Your task to perform on an android device: clear all cookies in the chrome app Image 0: 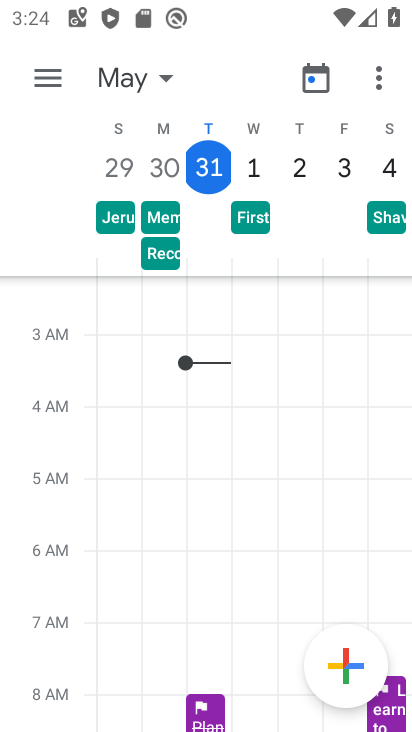
Step 0: press home button
Your task to perform on an android device: clear all cookies in the chrome app Image 1: 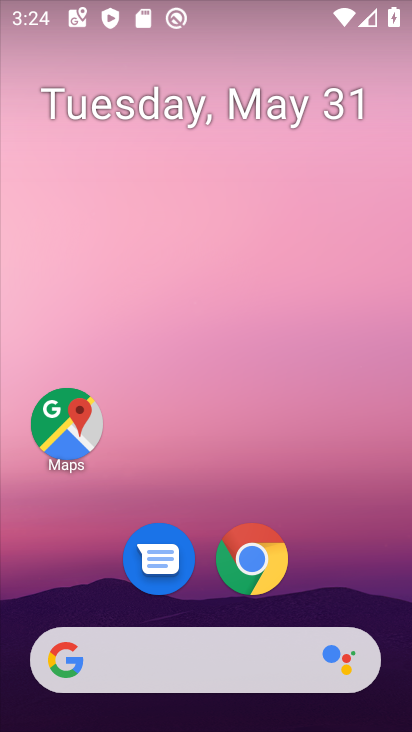
Step 1: click (249, 561)
Your task to perform on an android device: clear all cookies in the chrome app Image 2: 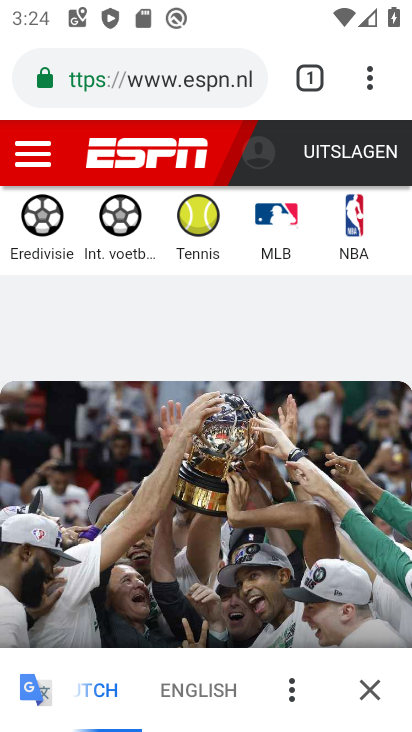
Step 2: click (370, 87)
Your task to perform on an android device: clear all cookies in the chrome app Image 3: 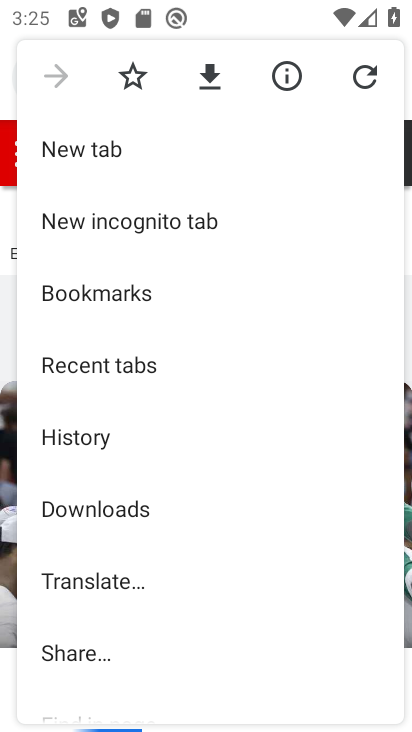
Step 3: click (85, 440)
Your task to perform on an android device: clear all cookies in the chrome app Image 4: 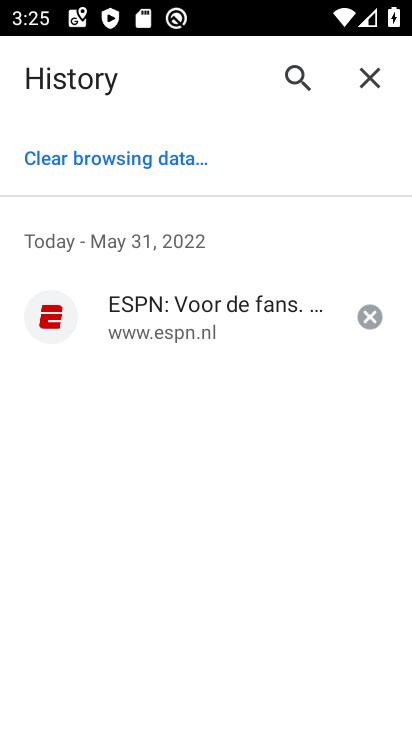
Step 4: click (117, 160)
Your task to perform on an android device: clear all cookies in the chrome app Image 5: 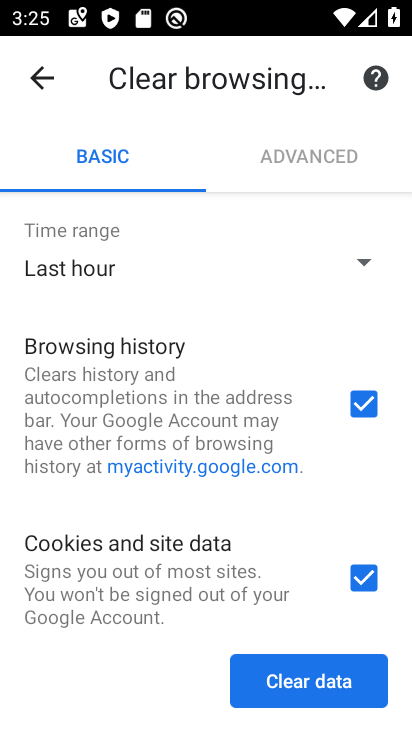
Step 5: drag from (318, 601) to (307, 331)
Your task to perform on an android device: clear all cookies in the chrome app Image 6: 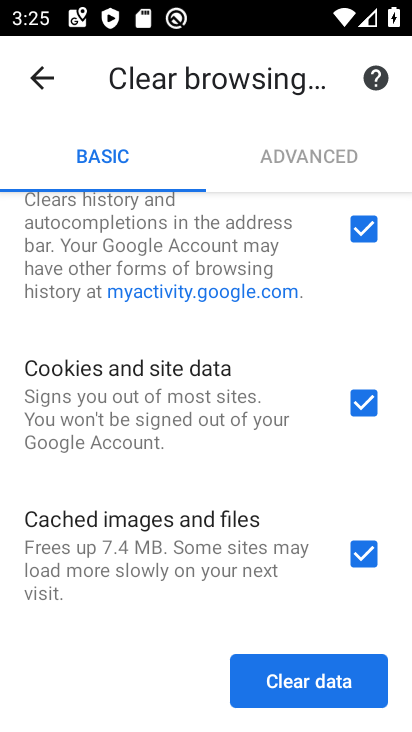
Step 6: click (366, 554)
Your task to perform on an android device: clear all cookies in the chrome app Image 7: 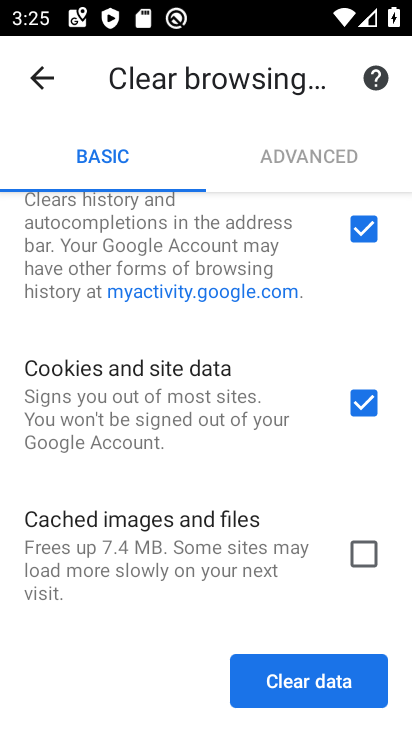
Step 7: click (365, 232)
Your task to perform on an android device: clear all cookies in the chrome app Image 8: 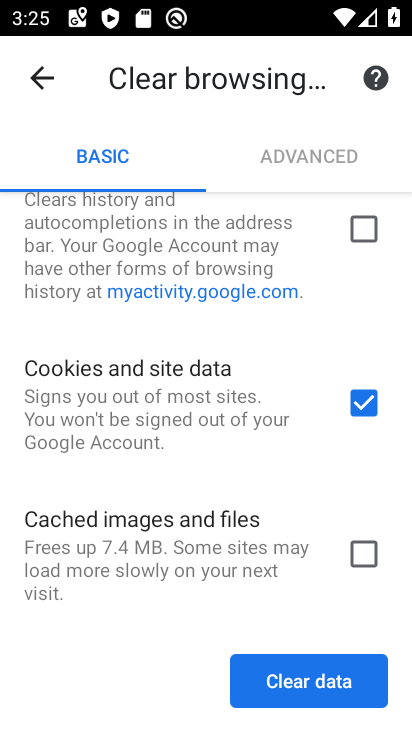
Step 8: click (313, 681)
Your task to perform on an android device: clear all cookies in the chrome app Image 9: 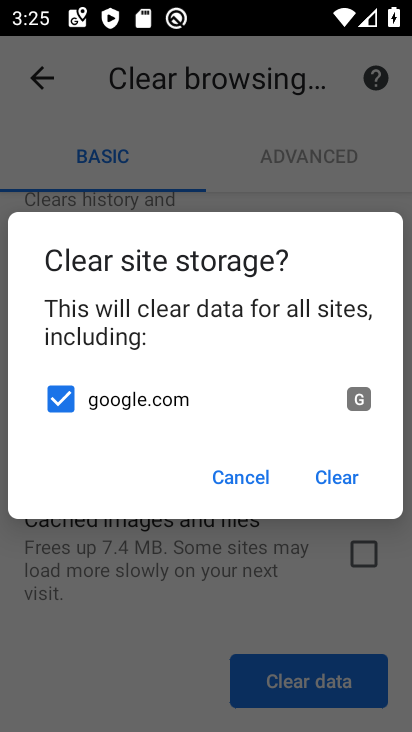
Step 9: click (334, 481)
Your task to perform on an android device: clear all cookies in the chrome app Image 10: 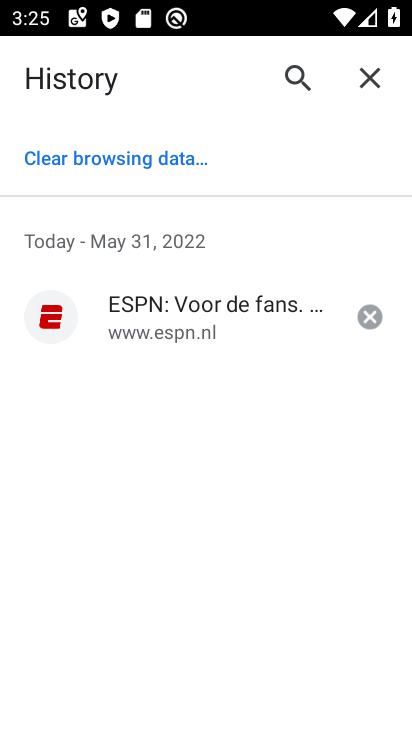
Step 10: task complete